Your task to perform on an android device: Go to eBay Image 0: 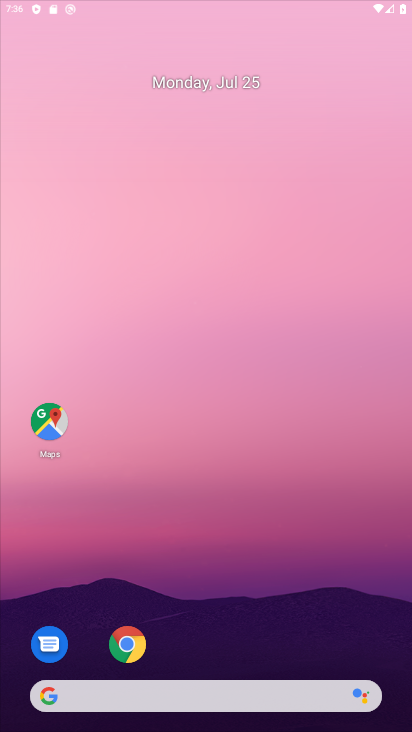
Step 0: click (174, 206)
Your task to perform on an android device: Go to eBay Image 1: 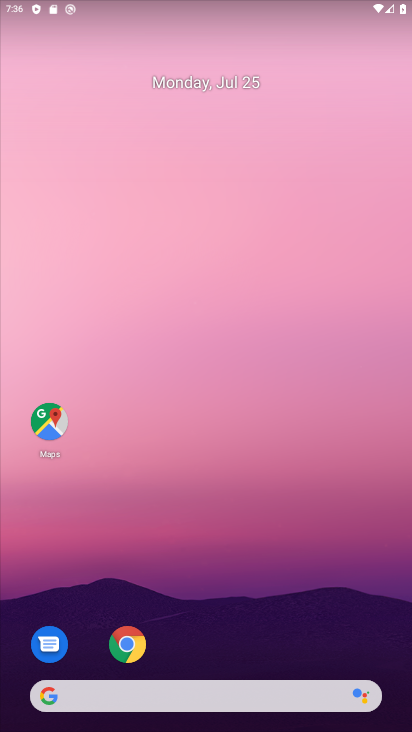
Step 1: click (126, 654)
Your task to perform on an android device: Go to eBay Image 2: 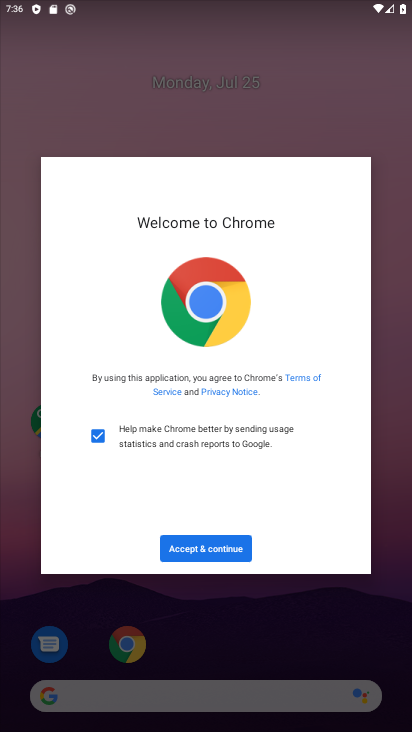
Step 2: click (179, 546)
Your task to perform on an android device: Go to eBay Image 3: 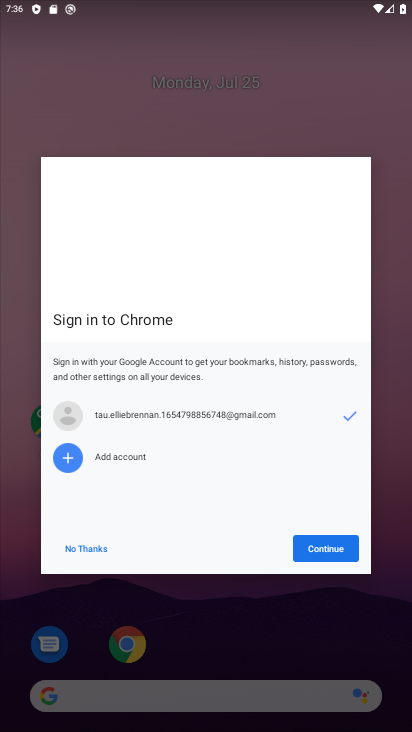
Step 3: click (326, 538)
Your task to perform on an android device: Go to eBay Image 4: 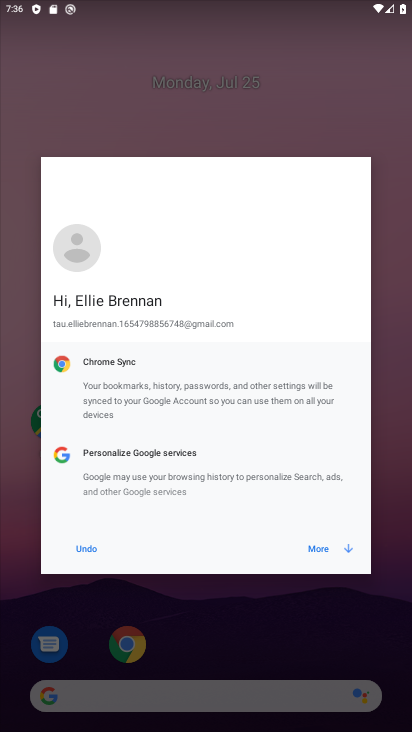
Step 4: click (317, 549)
Your task to perform on an android device: Go to eBay Image 5: 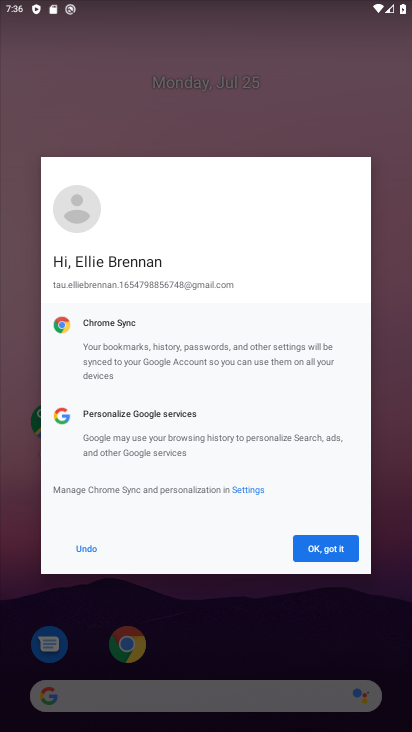
Step 5: click (317, 549)
Your task to perform on an android device: Go to eBay Image 6: 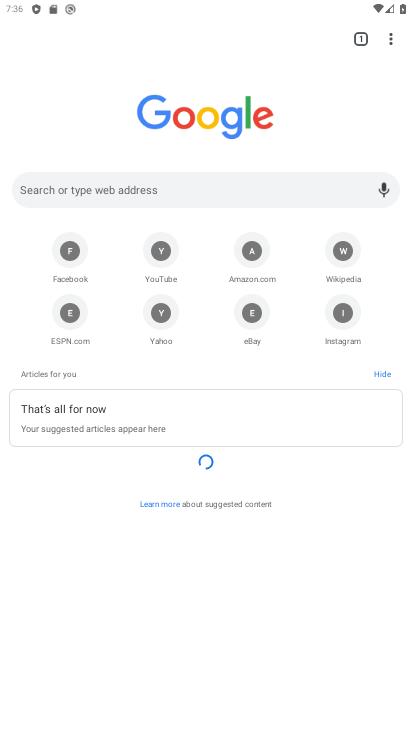
Step 6: click (141, 36)
Your task to perform on an android device: Go to eBay Image 7: 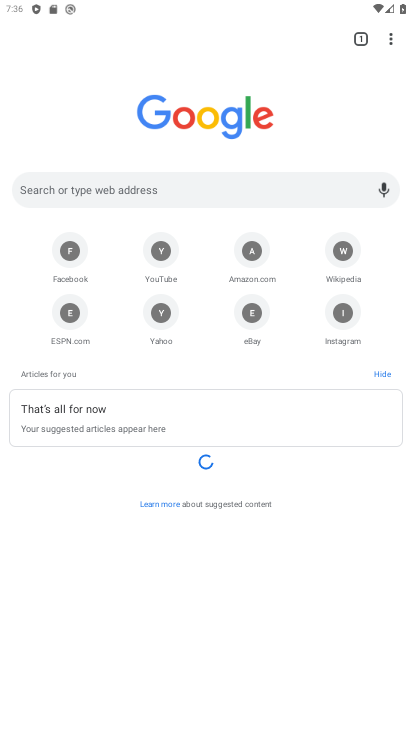
Step 7: click (83, 193)
Your task to perform on an android device: Go to eBay Image 8: 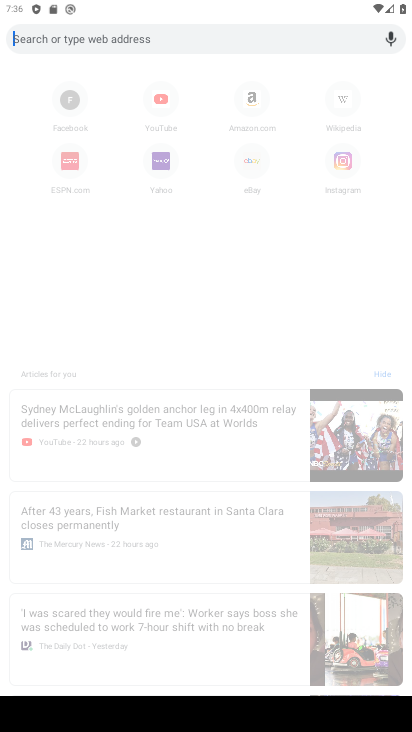
Step 8: type "www.ebay.com"
Your task to perform on an android device: Go to eBay Image 9: 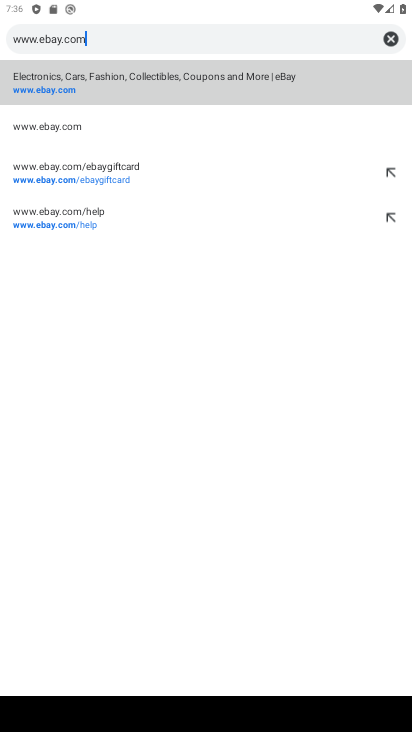
Step 9: click (31, 85)
Your task to perform on an android device: Go to eBay Image 10: 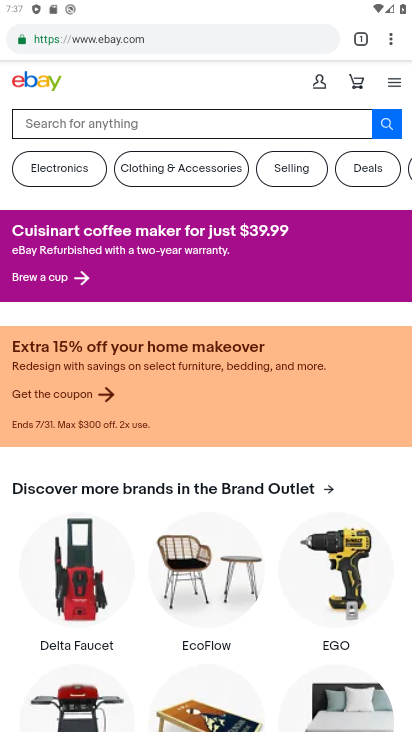
Step 10: task complete